Your task to perform on an android device: Go to eBay Image 0: 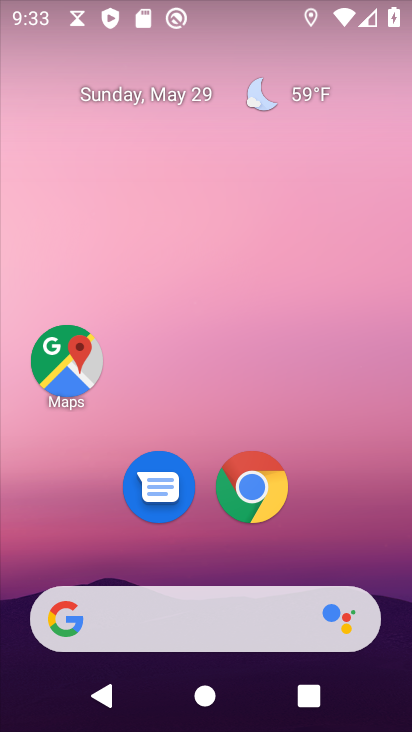
Step 0: click (252, 481)
Your task to perform on an android device: Go to eBay Image 1: 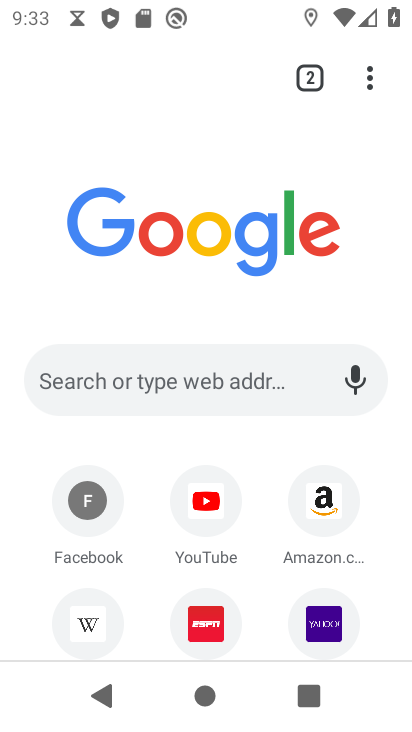
Step 1: click (233, 379)
Your task to perform on an android device: Go to eBay Image 2: 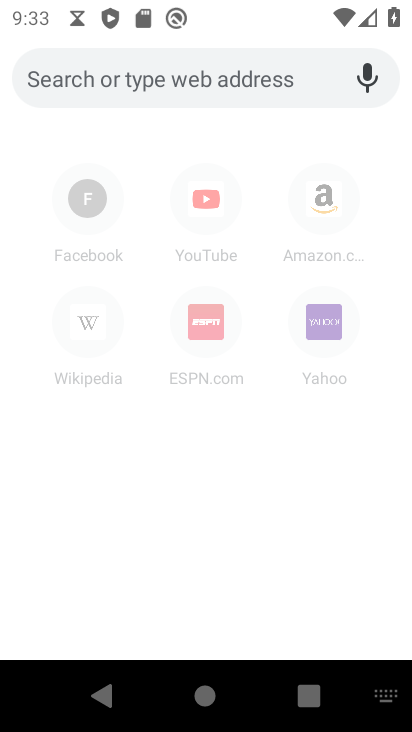
Step 2: type "eBay"
Your task to perform on an android device: Go to eBay Image 3: 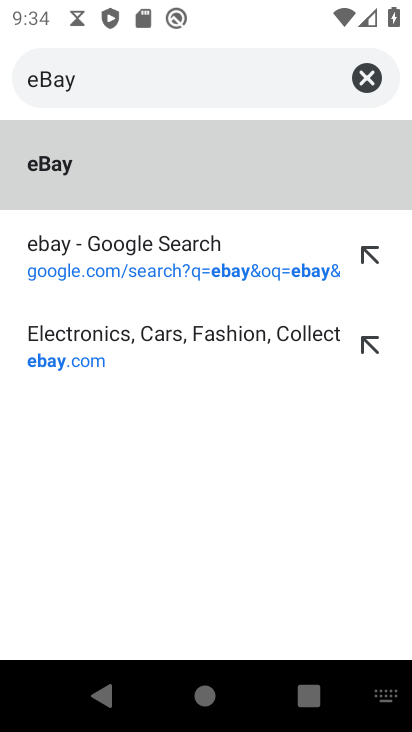
Step 3: click (60, 165)
Your task to perform on an android device: Go to eBay Image 4: 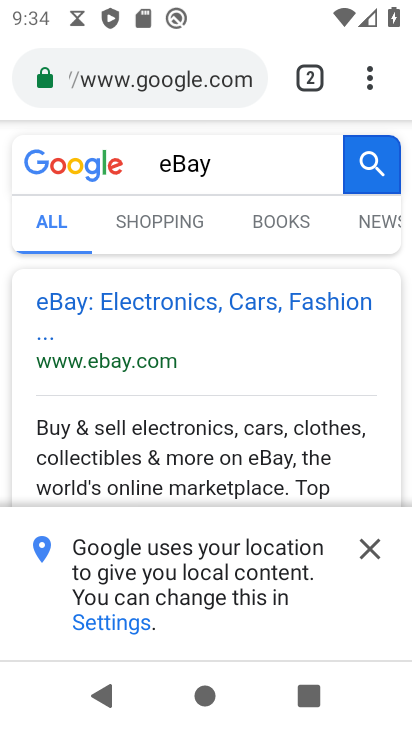
Step 4: click (366, 539)
Your task to perform on an android device: Go to eBay Image 5: 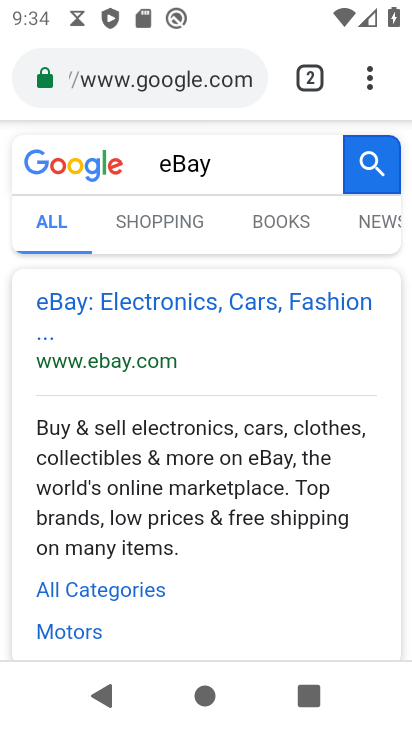
Step 5: click (99, 355)
Your task to perform on an android device: Go to eBay Image 6: 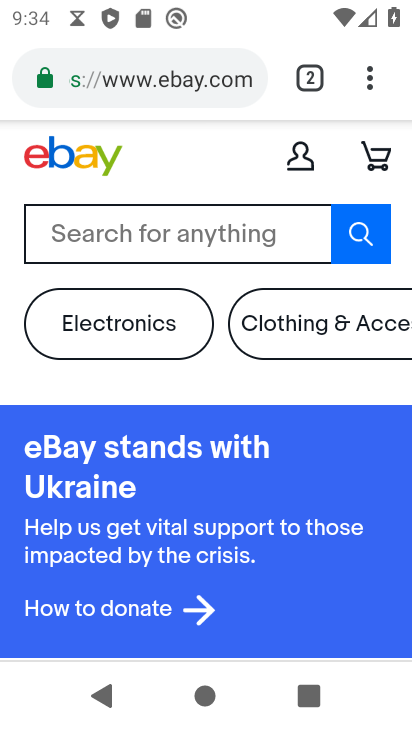
Step 6: task complete